Your task to perform on an android device: Open Yahoo.com Image 0: 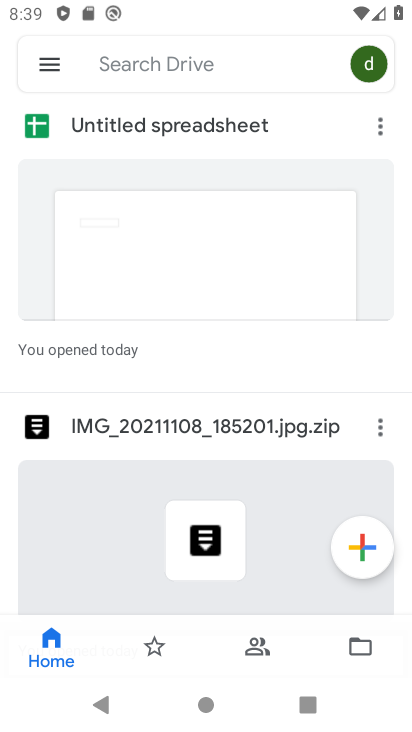
Step 0: press home button
Your task to perform on an android device: Open Yahoo.com Image 1: 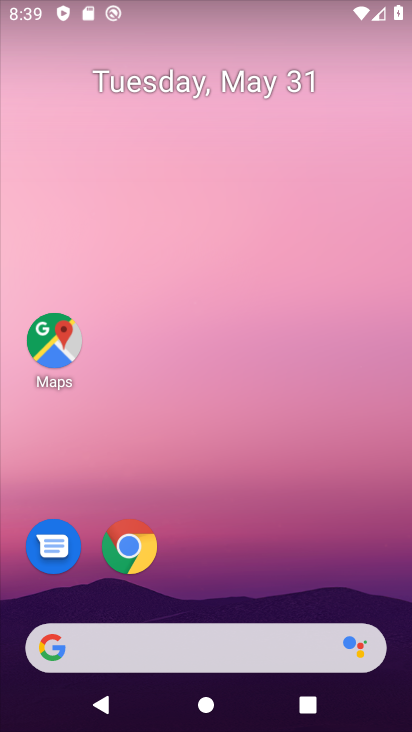
Step 1: click (128, 544)
Your task to perform on an android device: Open Yahoo.com Image 2: 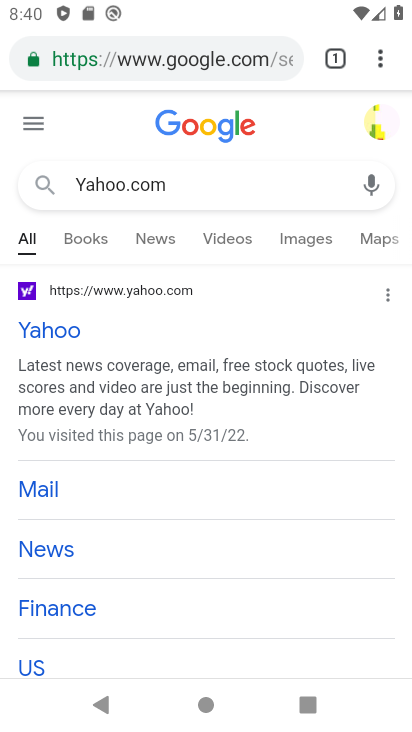
Step 2: click (180, 182)
Your task to perform on an android device: Open Yahoo.com Image 3: 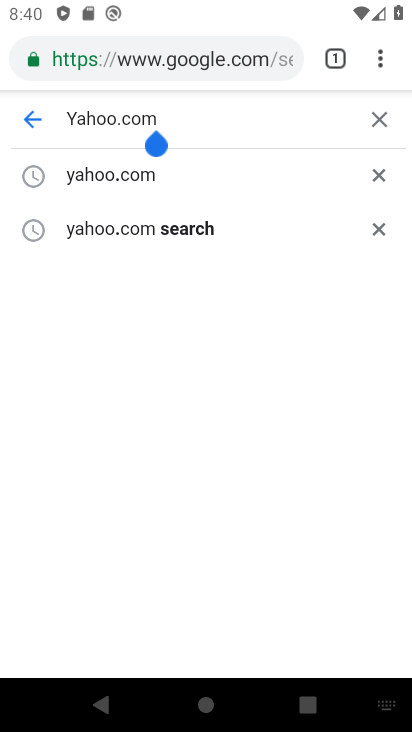
Step 3: click (291, 60)
Your task to perform on an android device: Open Yahoo.com Image 4: 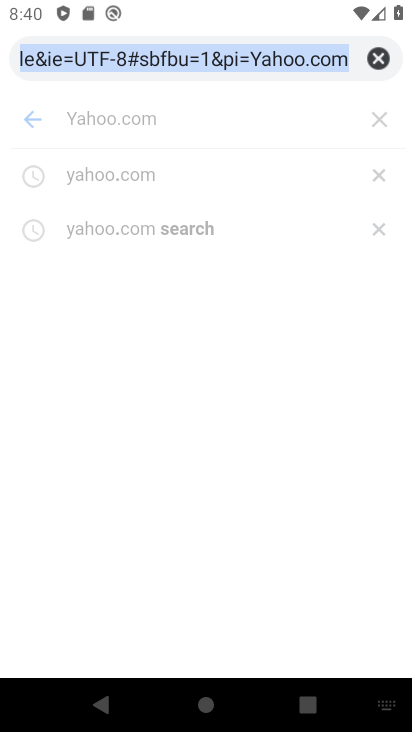
Step 4: click (377, 50)
Your task to perform on an android device: Open Yahoo.com Image 5: 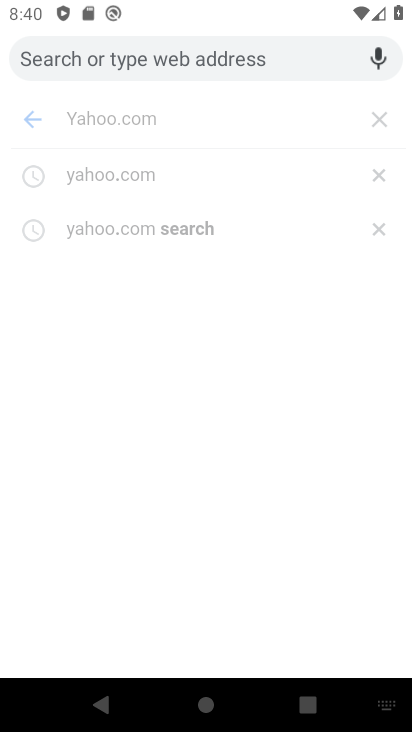
Step 5: type "Yahoo.com"
Your task to perform on an android device: Open Yahoo.com Image 6: 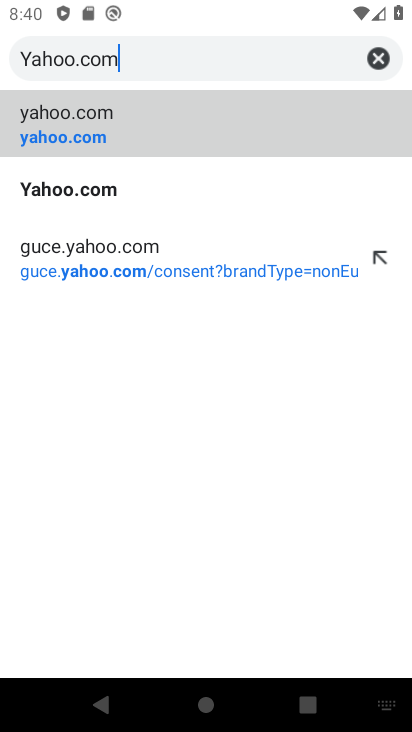
Step 6: click (86, 189)
Your task to perform on an android device: Open Yahoo.com Image 7: 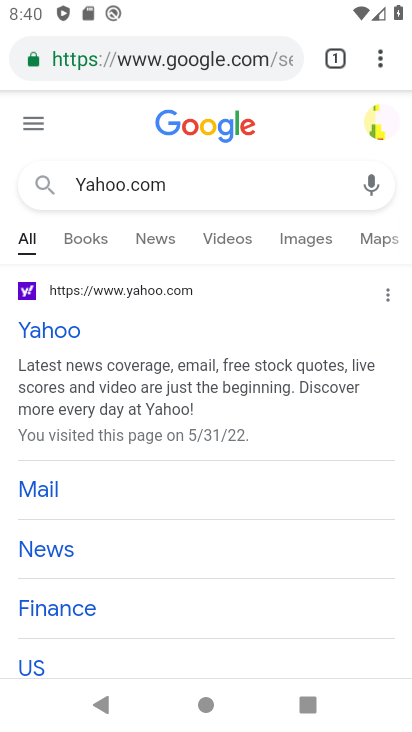
Step 7: task complete